Your task to perform on an android device: Go to display settings Image 0: 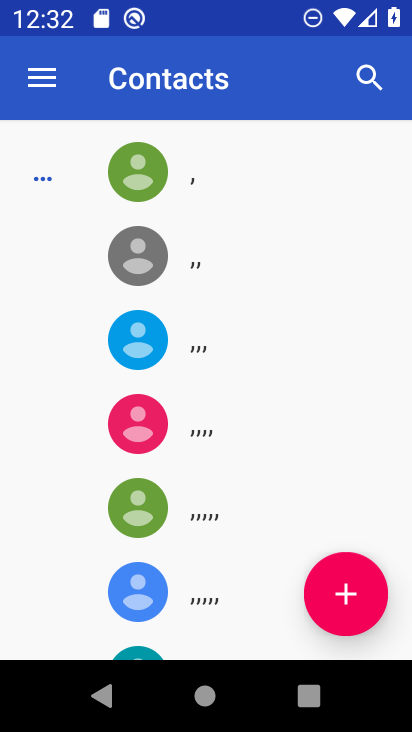
Step 0: press home button
Your task to perform on an android device: Go to display settings Image 1: 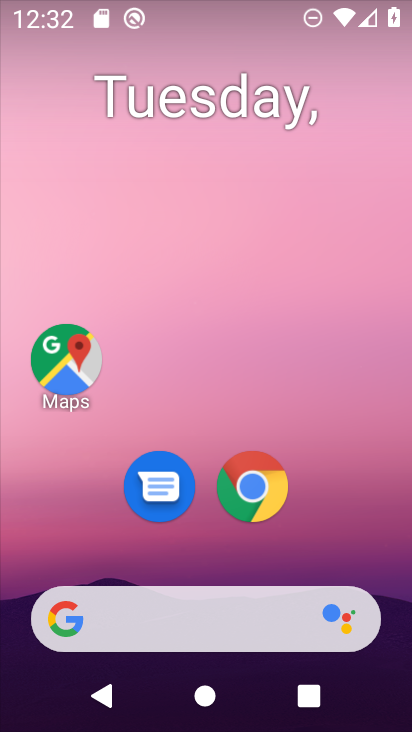
Step 1: drag from (214, 557) to (262, 176)
Your task to perform on an android device: Go to display settings Image 2: 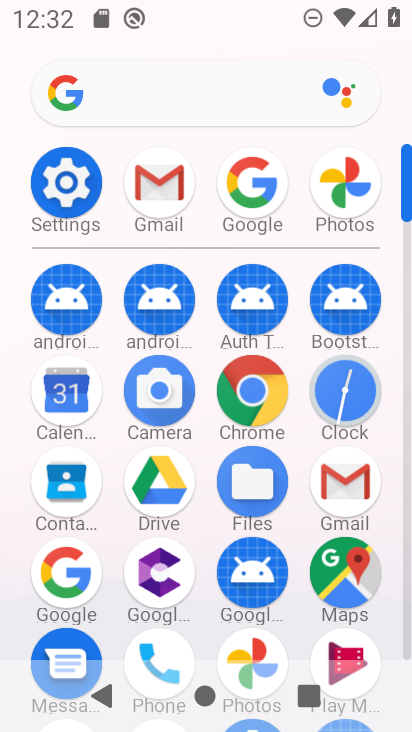
Step 2: drag from (201, 255) to (206, 60)
Your task to perform on an android device: Go to display settings Image 3: 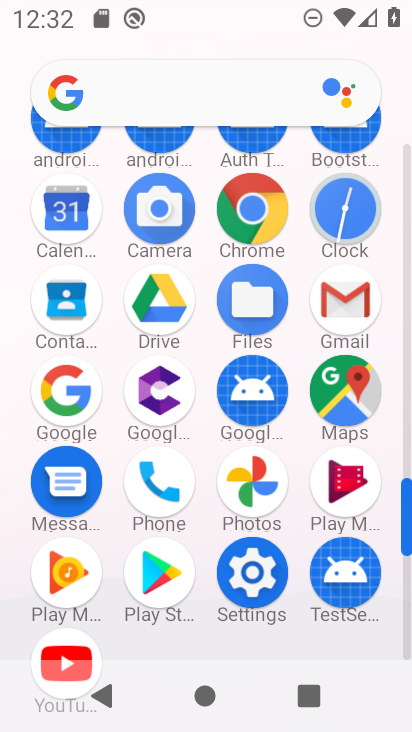
Step 3: click (272, 583)
Your task to perform on an android device: Go to display settings Image 4: 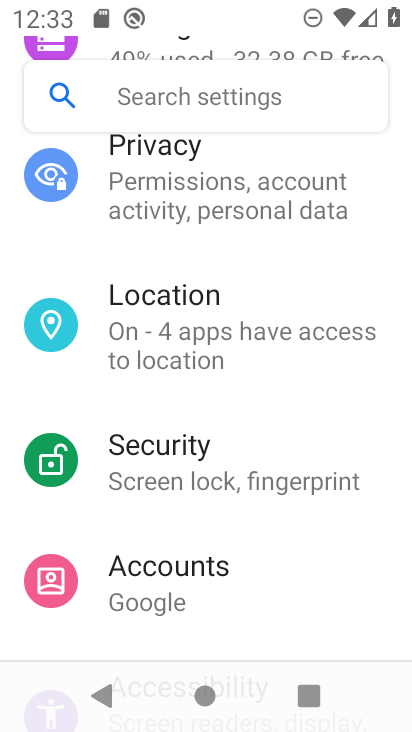
Step 4: drag from (251, 272) to (167, 612)
Your task to perform on an android device: Go to display settings Image 5: 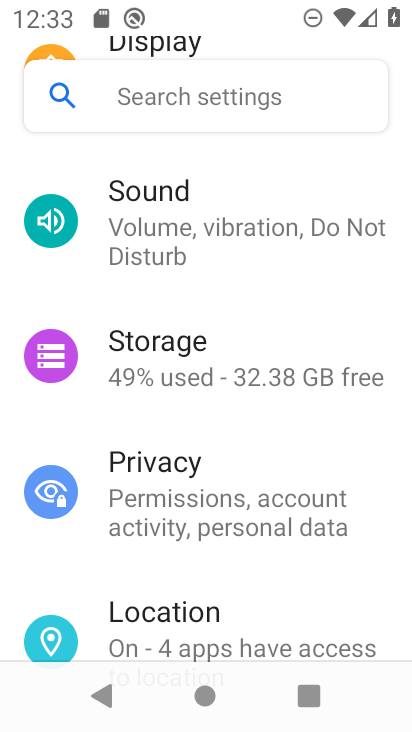
Step 5: drag from (216, 305) to (163, 626)
Your task to perform on an android device: Go to display settings Image 6: 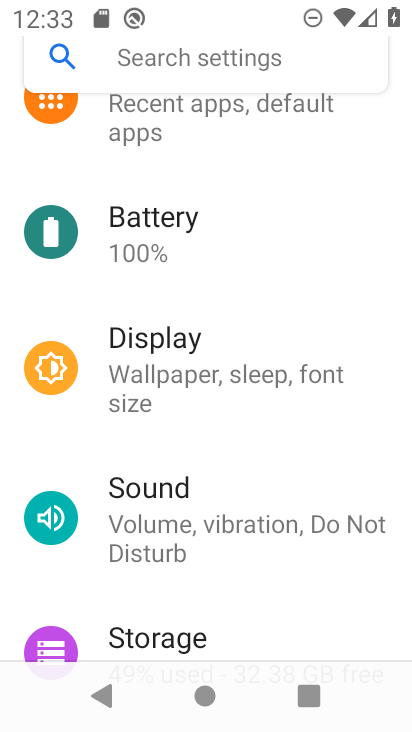
Step 6: click (184, 385)
Your task to perform on an android device: Go to display settings Image 7: 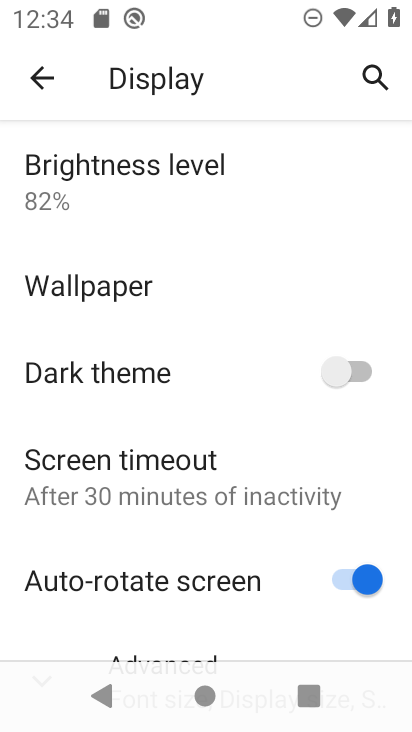
Step 7: task complete